Your task to perform on an android device: turn pop-ups on in chrome Image 0: 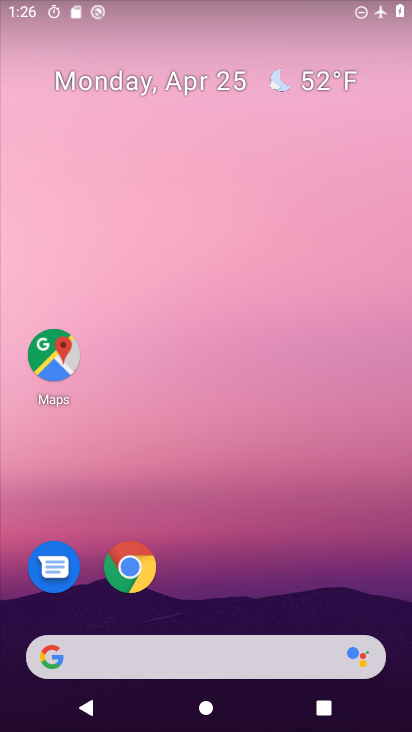
Step 0: click (132, 555)
Your task to perform on an android device: turn pop-ups on in chrome Image 1: 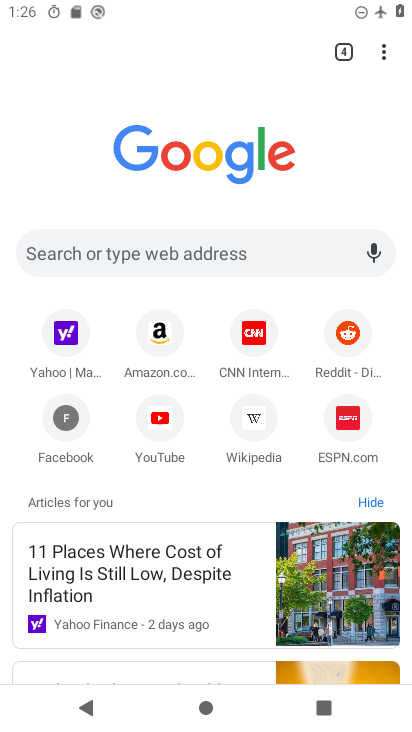
Step 1: click (383, 59)
Your task to perform on an android device: turn pop-ups on in chrome Image 2: 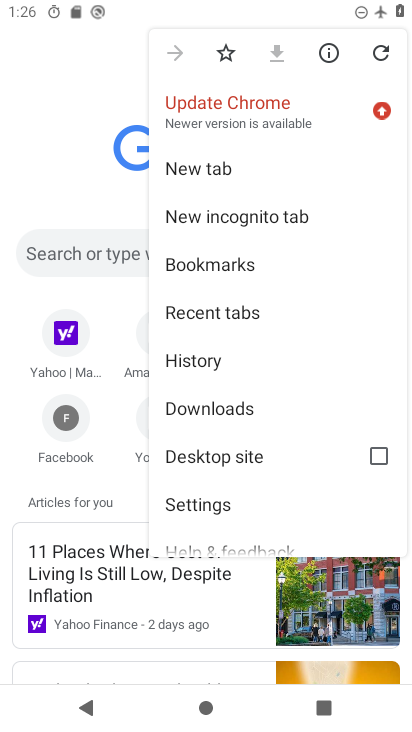
Step 2: click (250, 493)
Your task to perform on an android device: turn pop-ups on in chrome Image 3: 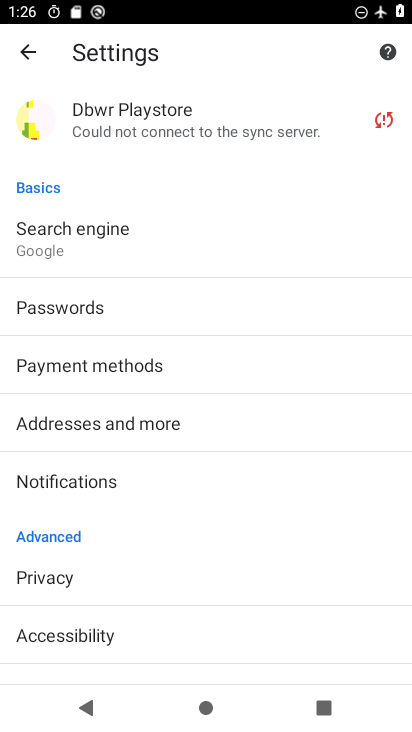
Step 3: drag from (246, 611) to (262, 417)
Your task to perform on an android device: turn pop-ups on in chrome Image 4: 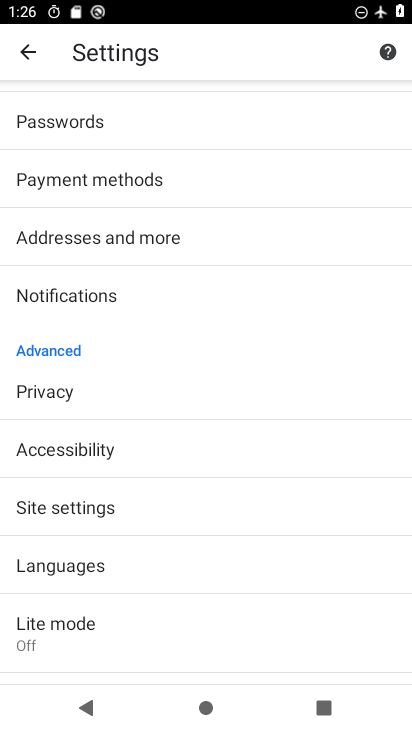
Step 4: click (219, 496)
Your task to perform on an android device: turn pop-ups on in chrome Image 5: 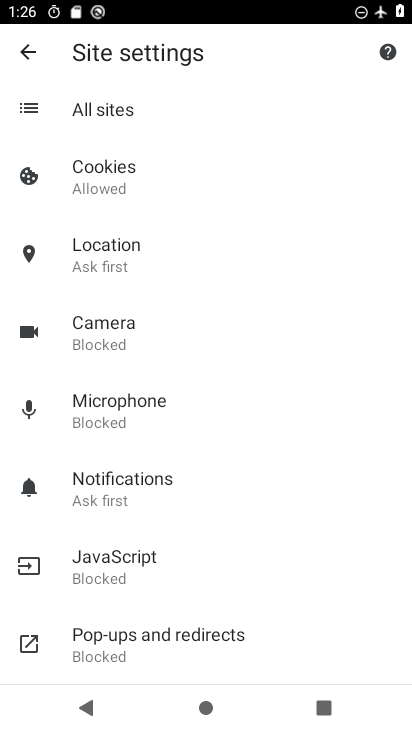
Step 5: click (212, 623)
Your task to perform on an android device: turn pop-ups on in chrome Image 6: 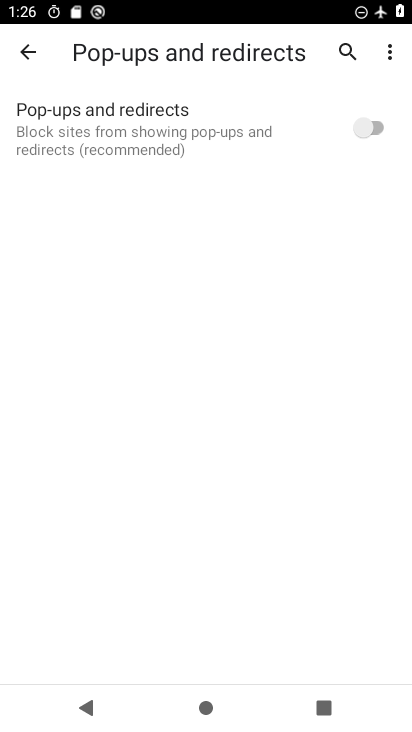
Step 6: click (376, 128)
Your task to perform on an android device: turn pop-ups on in chrome Image 7: 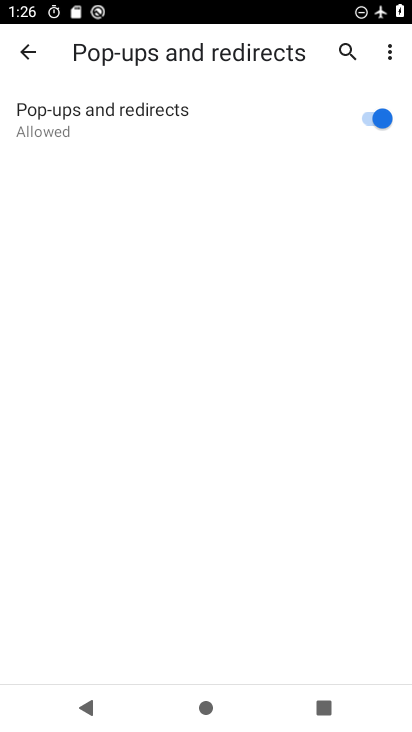
Step 7: task complete